Your task to perform on an android device: check the backup settings in the google photos Image 0: 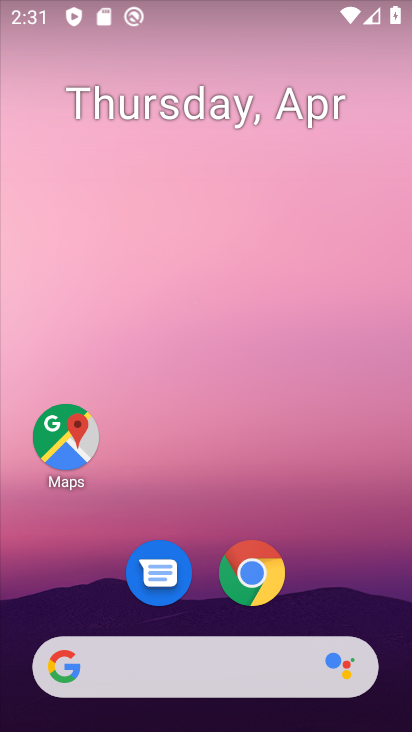
Step 0: drag from (344, 602) to (264, 33)
Your task to perform on an android device: check the backup settings in the google photos Image 1: 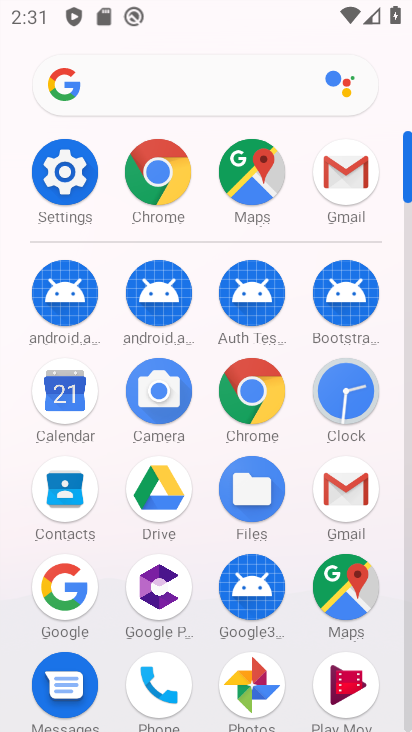
Step 1: click (238, 672)
Your task to perform on an android device: check the backup settings in the google photos Image 2: 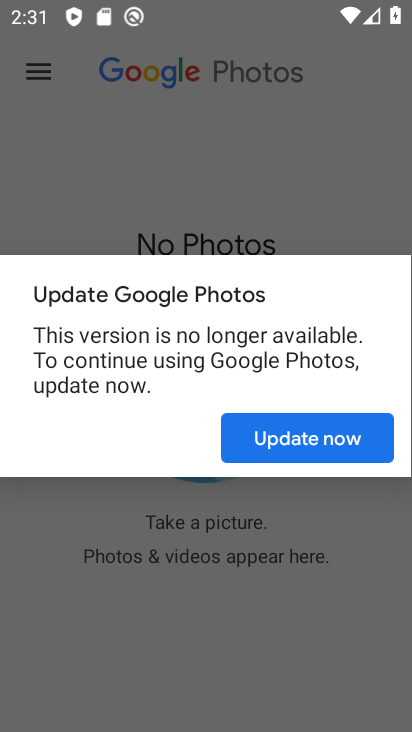
Step 2: click (290, 446)
Your task to perform on an android device: check the backup settings in the google photos Image 3: 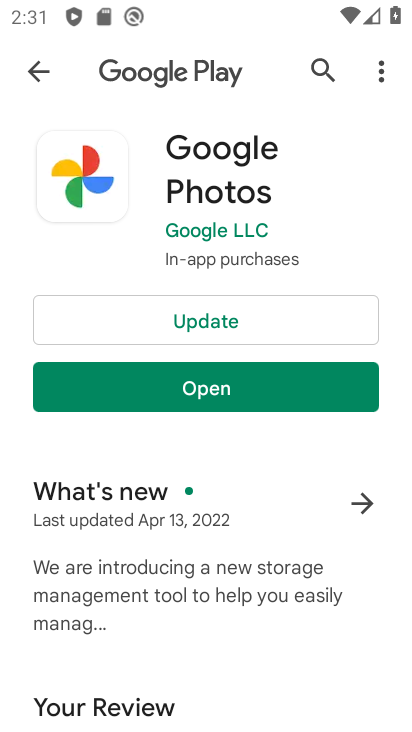
Step 3: click (224, 323)
Your task to perform on an android device: check the backup settings in the google photos Image 4: 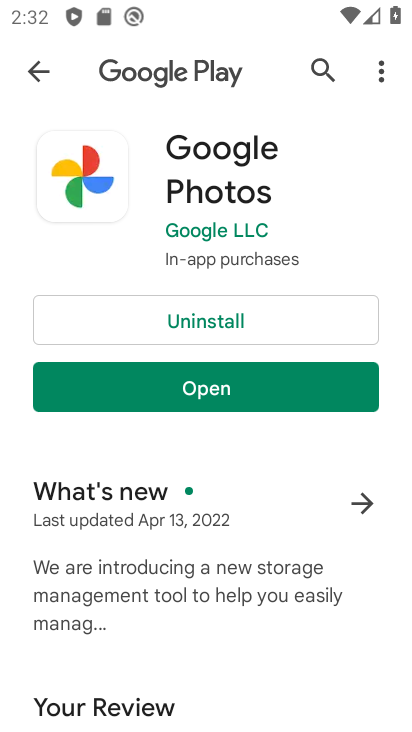
Step 4: click (197, 377)
Your task to perform on an android device: check the backup settings in the google photos Image 5: 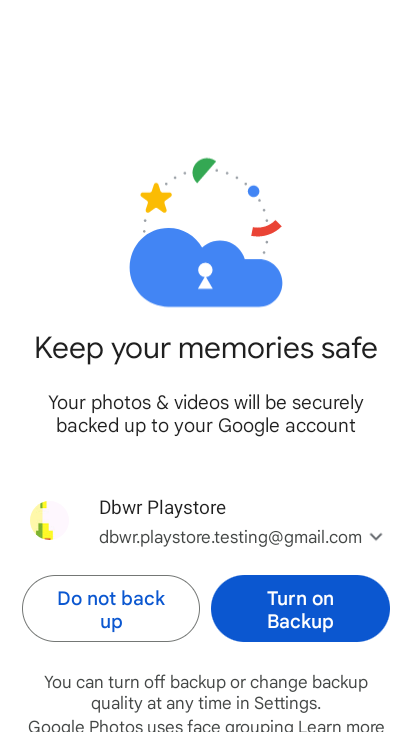
Step 5: click (294, 615)
Your task to perform on an android device: check the backup settings in the google photos Image 6: 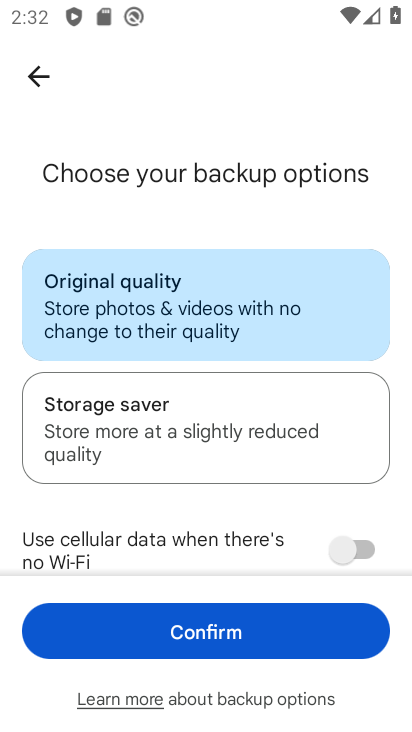
Step 6: click (227, 623)
Your task to perform on an android device: check the backup settings in the google photos Image 7: 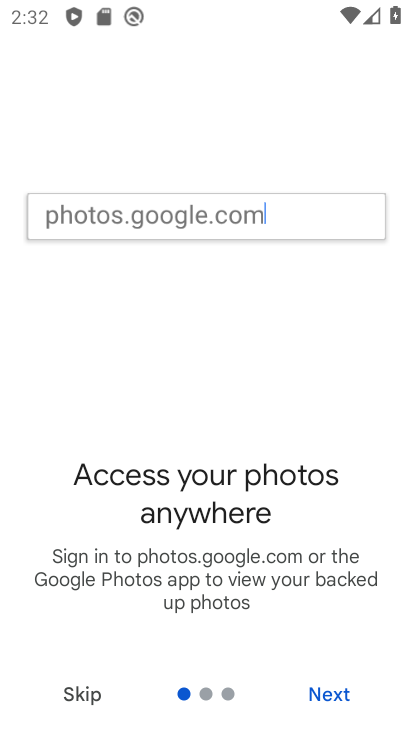
Step 7: click (340, 689)
Your task to perform on an android device: check the backup settings in the google photos Image 8: 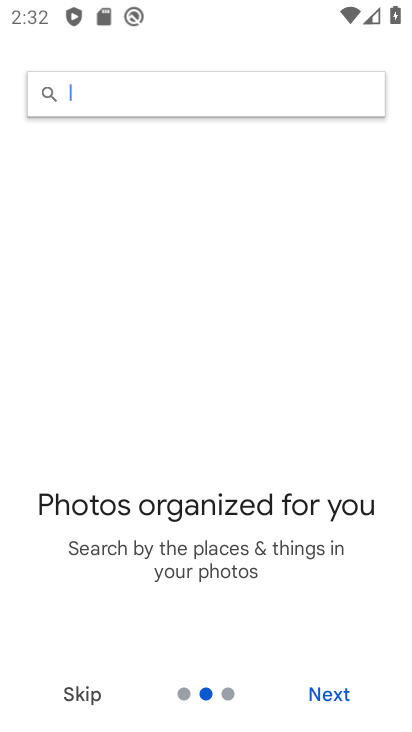
Step 8: click (340, 689)
Your task to perform on an android device: check the backup settings in the google photos Image 9: 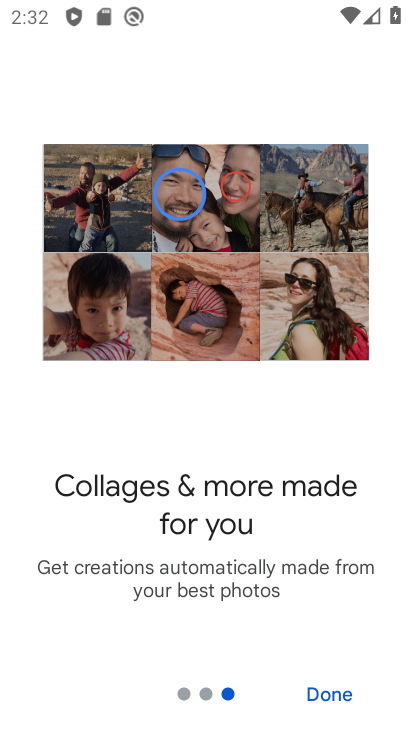
Step 9: click (340, 689)
Your task to perform on an android device: check the backup settings in the google photos Image 10: 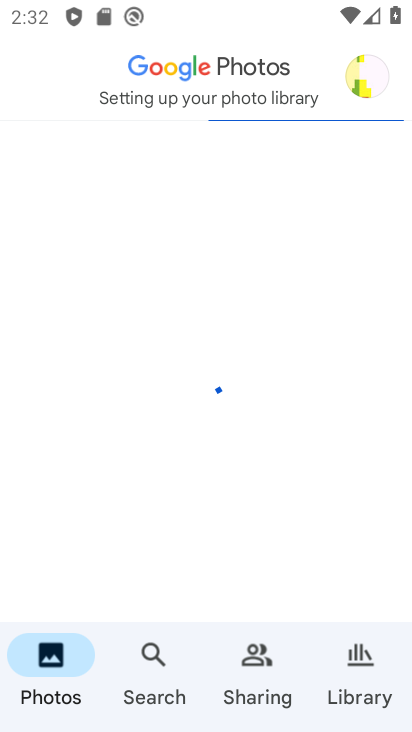
Step 10: click (370, 69)
Your task to perform on an android device: check the backup settings in the google photos Image 11: 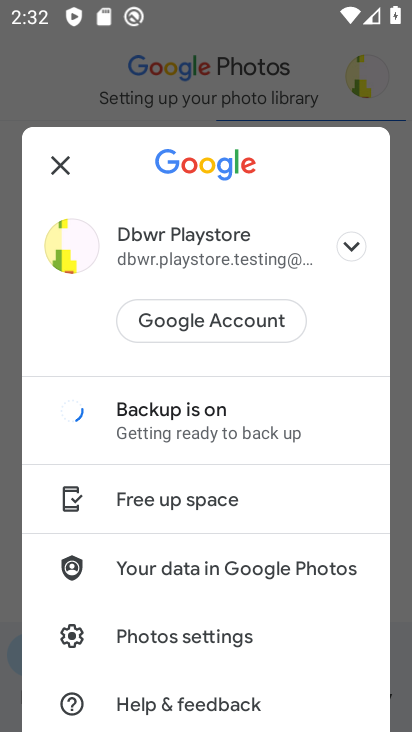
Step 11: click (193, 424)
Your task to perform on an android device: check the backup settings in the google photos Image 12: 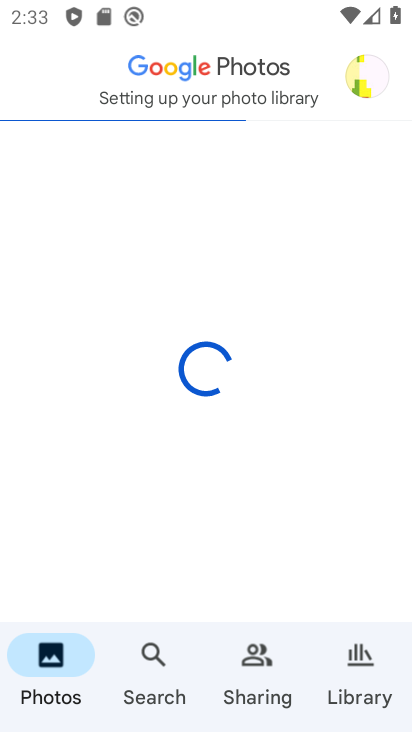
Step 12: click (349, 75)
Your task to perform on an android device: check the backup settings in the google photos Image 13: 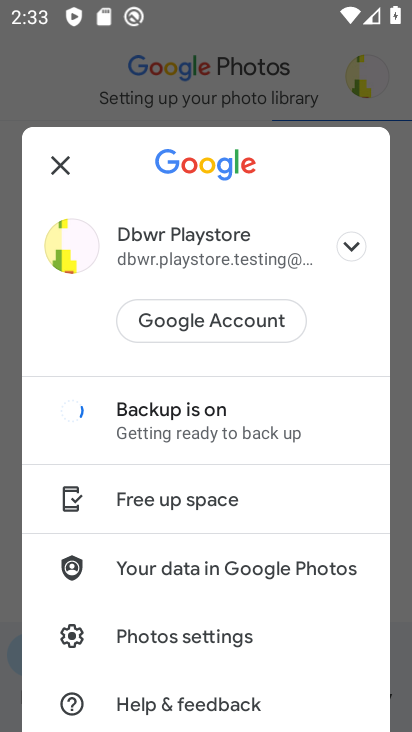
Step 13: click (179, 419)
Your task to perform on an android device: check the backup settings in the google photos Image 14: 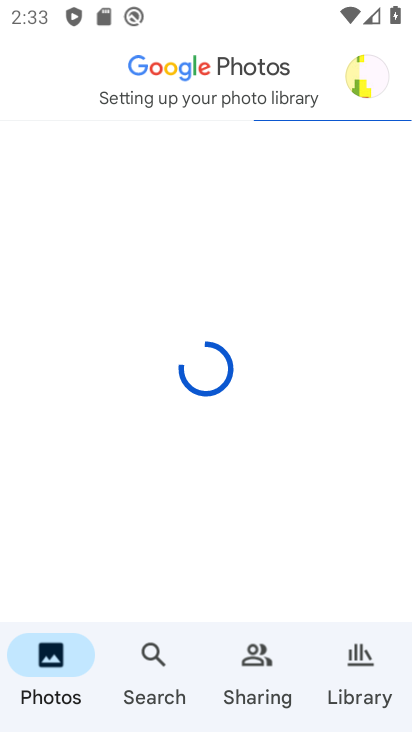
Step 14: click (366, 65)
Your task to perform on an android device: check the backup settings in the google photos Image 15: 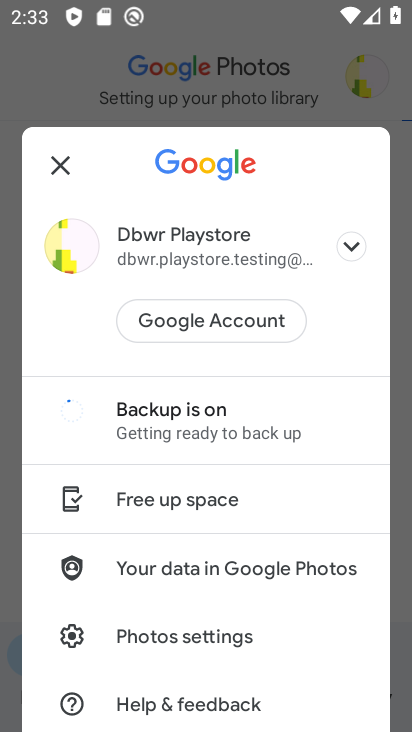
Step 15: click (224, 414)
Your task to perform on an android device: check the backup settings in the google photos Image 16: 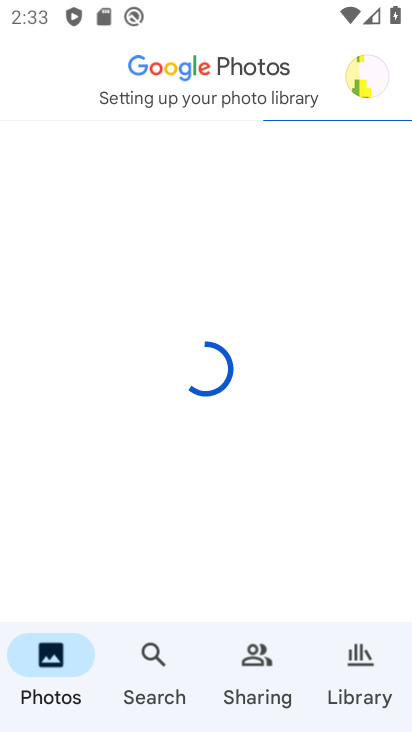
Step 16: task complete